Your task to perform on an android device: toggle improve location accuracy Image 0: 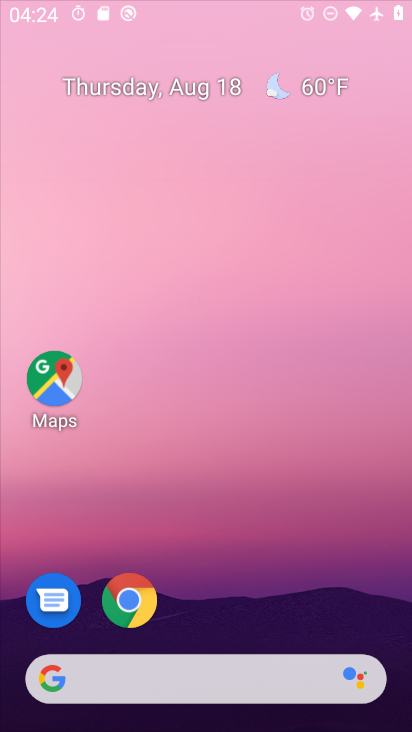
Step 0: press home button
Your task to perform on an android device: toggle improve location accuracy Image 1: 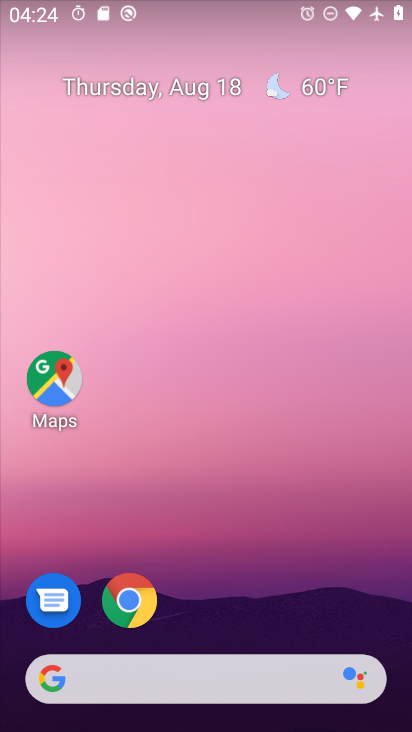
Step 1: drag from (265, 639) to (213, 179)
Your task to perform on an android device: toggle improve location accuracy Image 2: 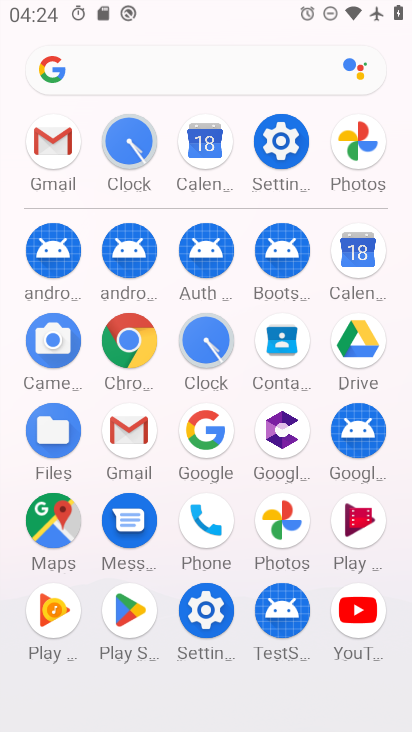
Step 2: click (276, 159)
Your task to perform on an android device: toggle improve location accuracy Image 3: 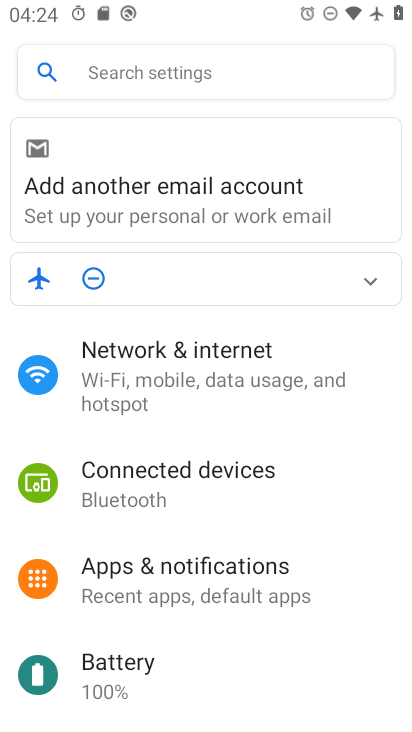
Step 3: drag from (280, 624) to (252, 180)
Your task to perform on an android device: toggle improve location accuracy Image 4: 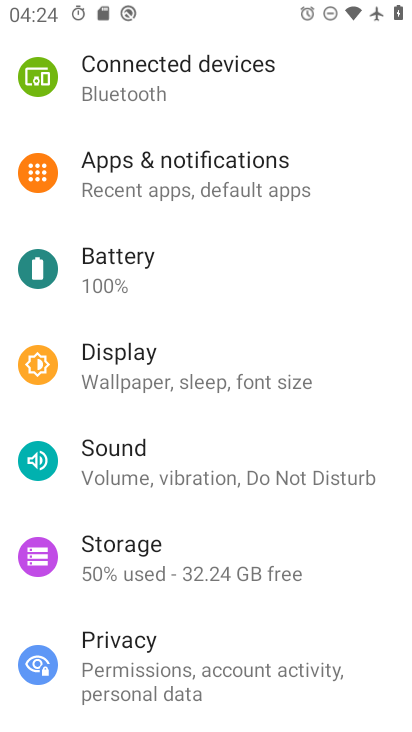
Step 4: drag from (311, 615) to (286, 229)
Your task to perform on an android device: toggle improve location accuracy Image 5: 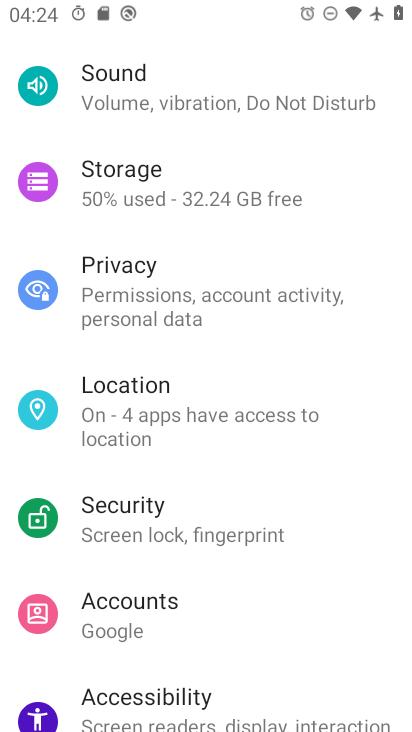
Step 5: click (121, 408)
Your task to perform on an android device: toggle improve location accuracy Image 6: 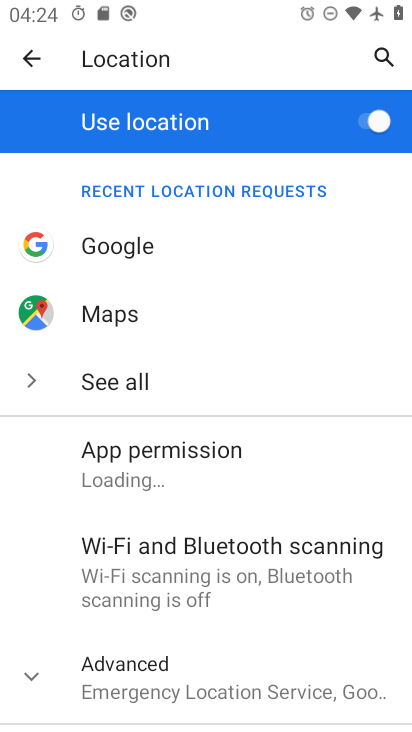
Step 6: click (154, 690)
Your task to perform on an android device: toggle improve location accuracy Image 7: 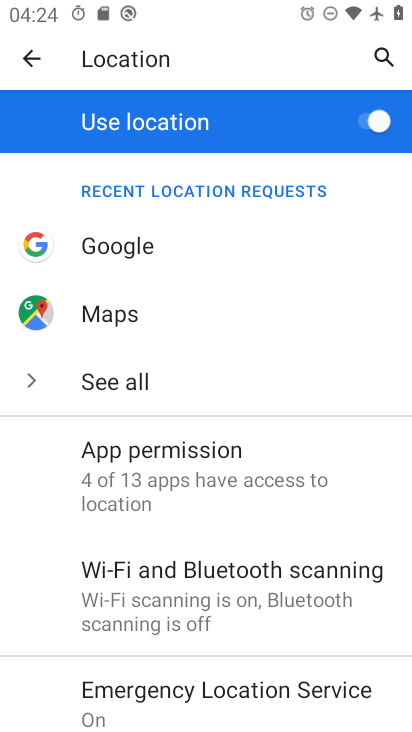
Step 7: drag from (289, 666) to (313, 228)
Your task to perform on an android device: toggle improve location accuracy Image 8: 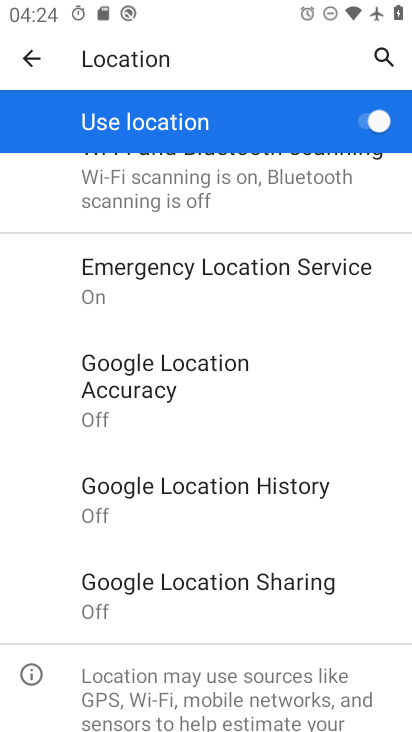
Step 8: click (172, 382)
Your task to perform on an android device: toggle improve location accuracy Image 9: 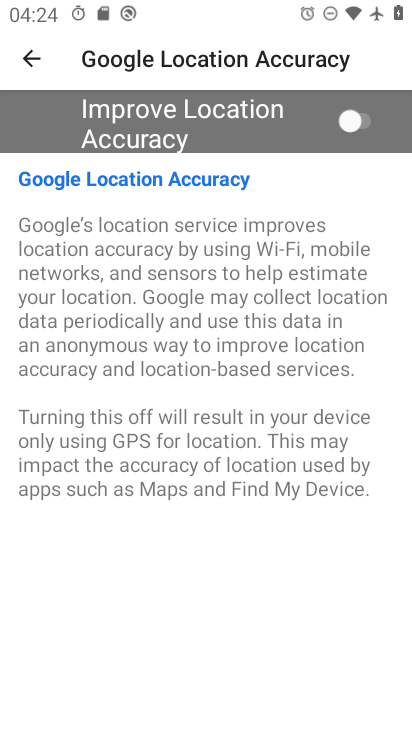
Step 9: click (349, 120)
Your task to perform on an android device: toggle improve location accuracy Image 10: 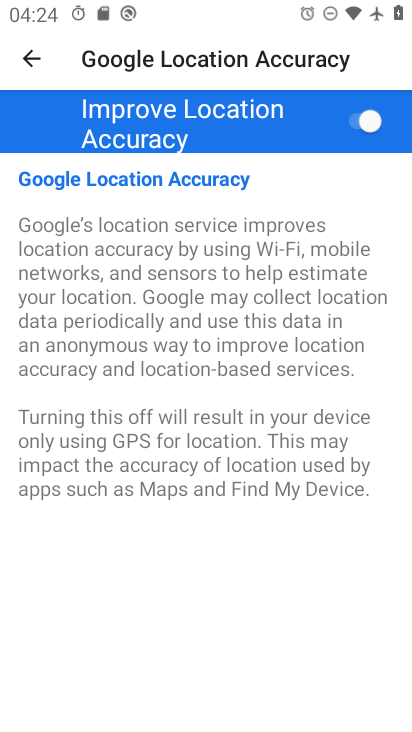
Step 10: task complete